Your task to perform on an android device: install app "Indeed Job Search" Image 0: 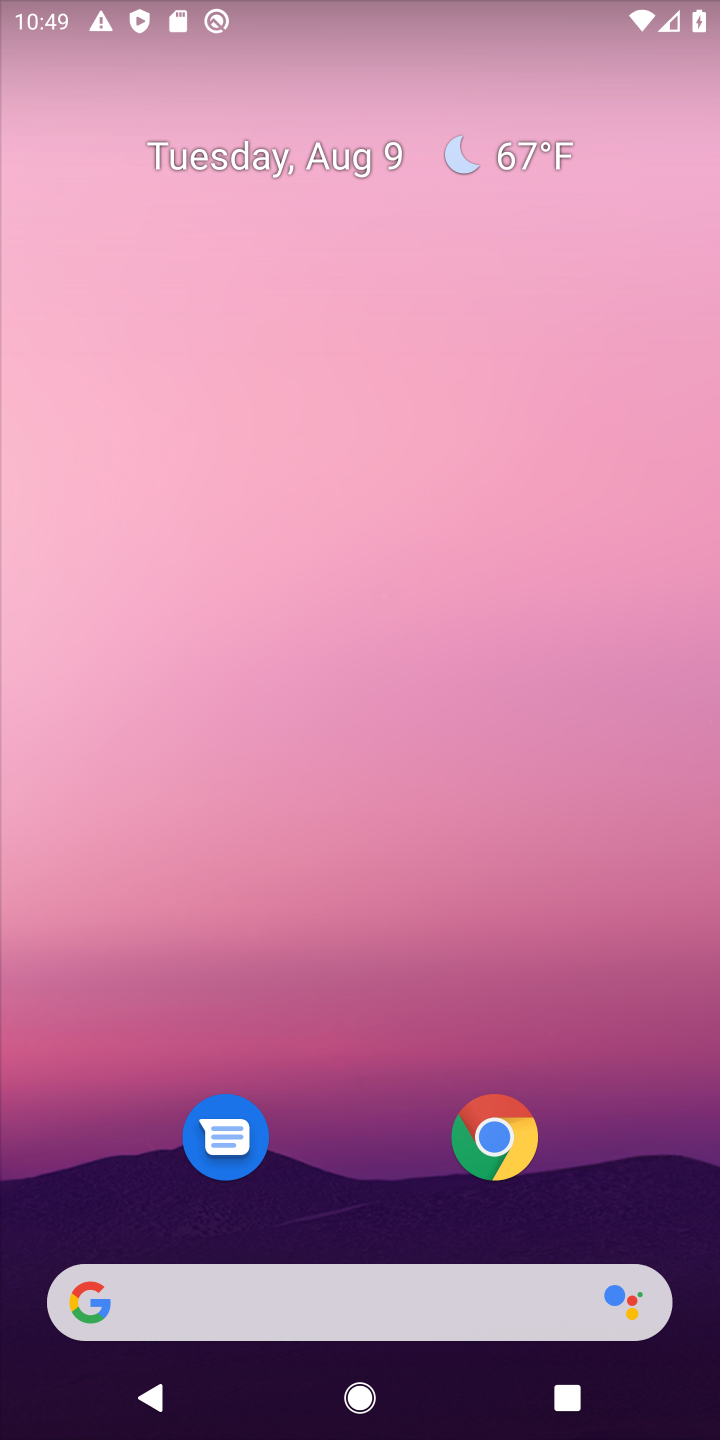
Step 0: drag from (645, 1173) to (284, 145)
Your task to perform on an android device: install app "Indeed Job Search" Image 1: 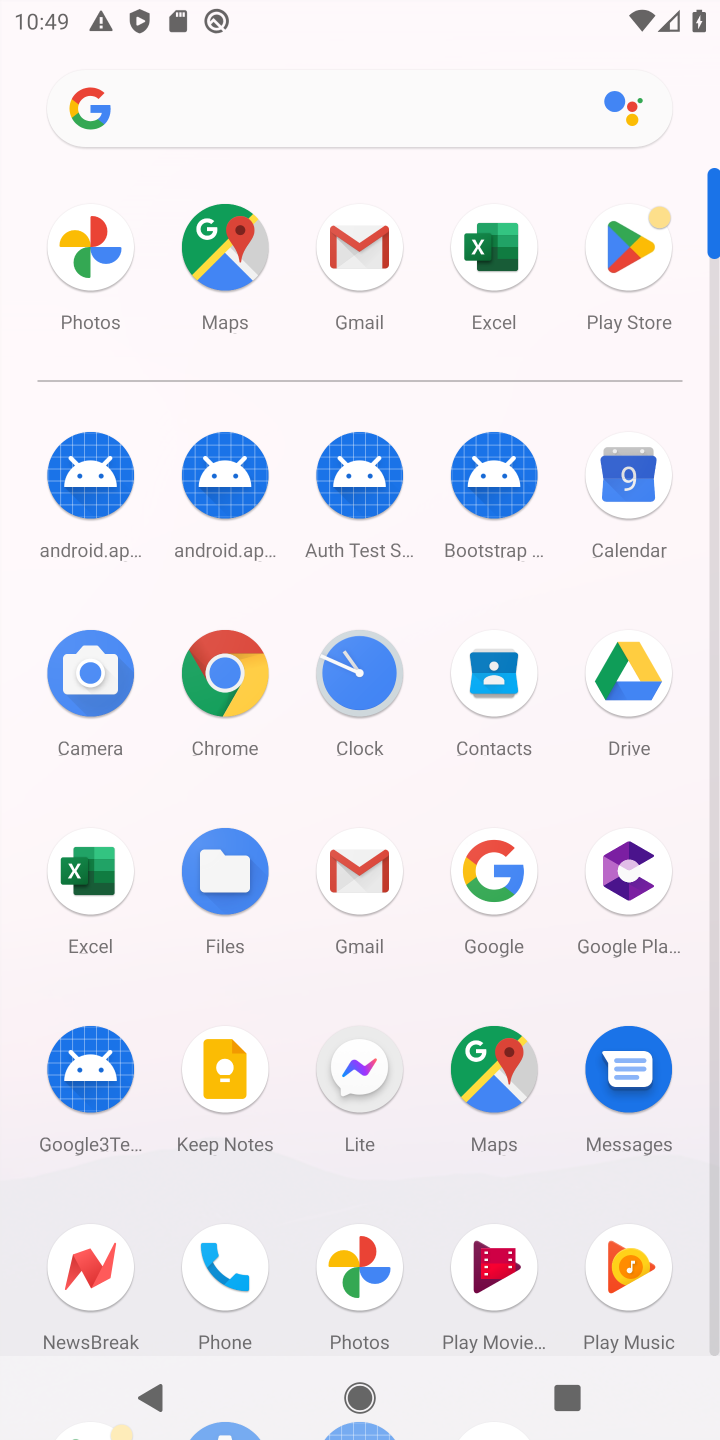
Step 1: click (635, 230)
Your task to perform on an android device: install app "Indeed Job Search" Image 2: 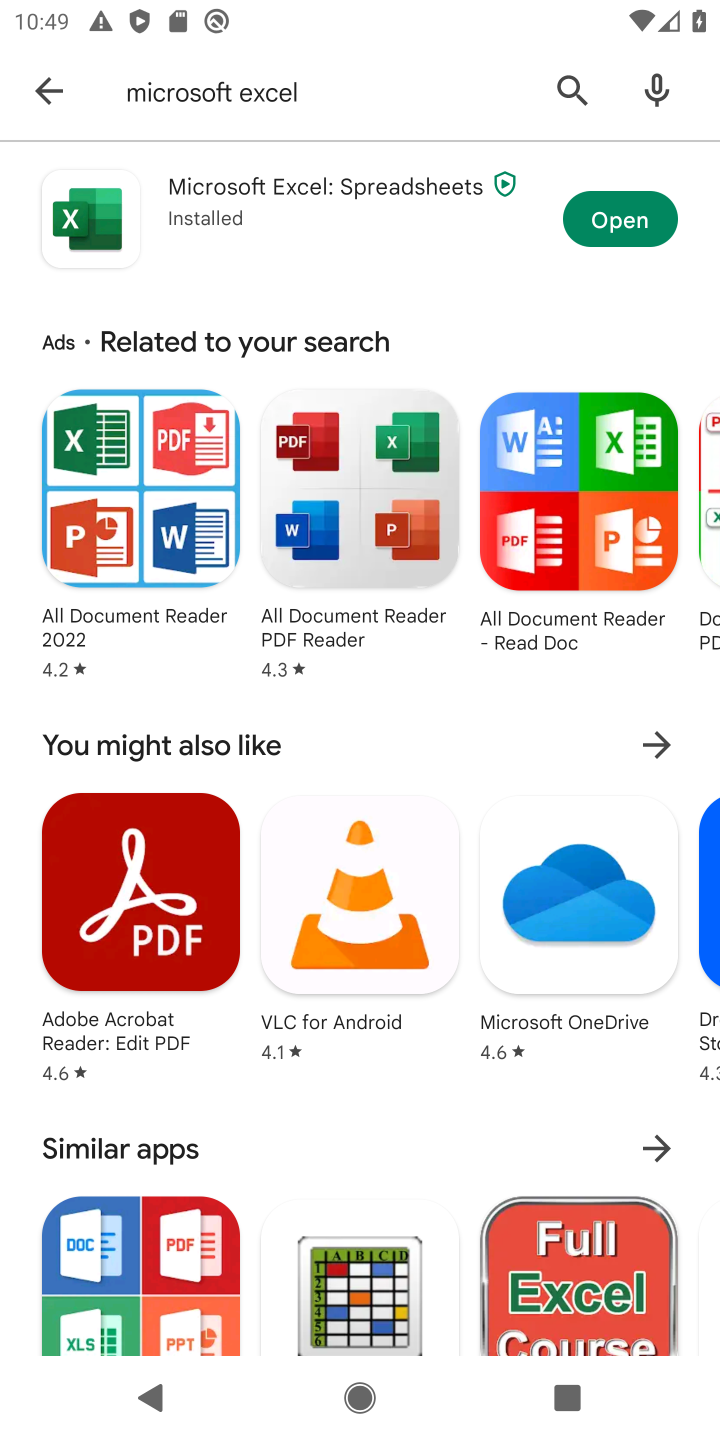
Step 2: press back button
Your task to perform on an android device: install app "Indeed Job Search" Image 3: 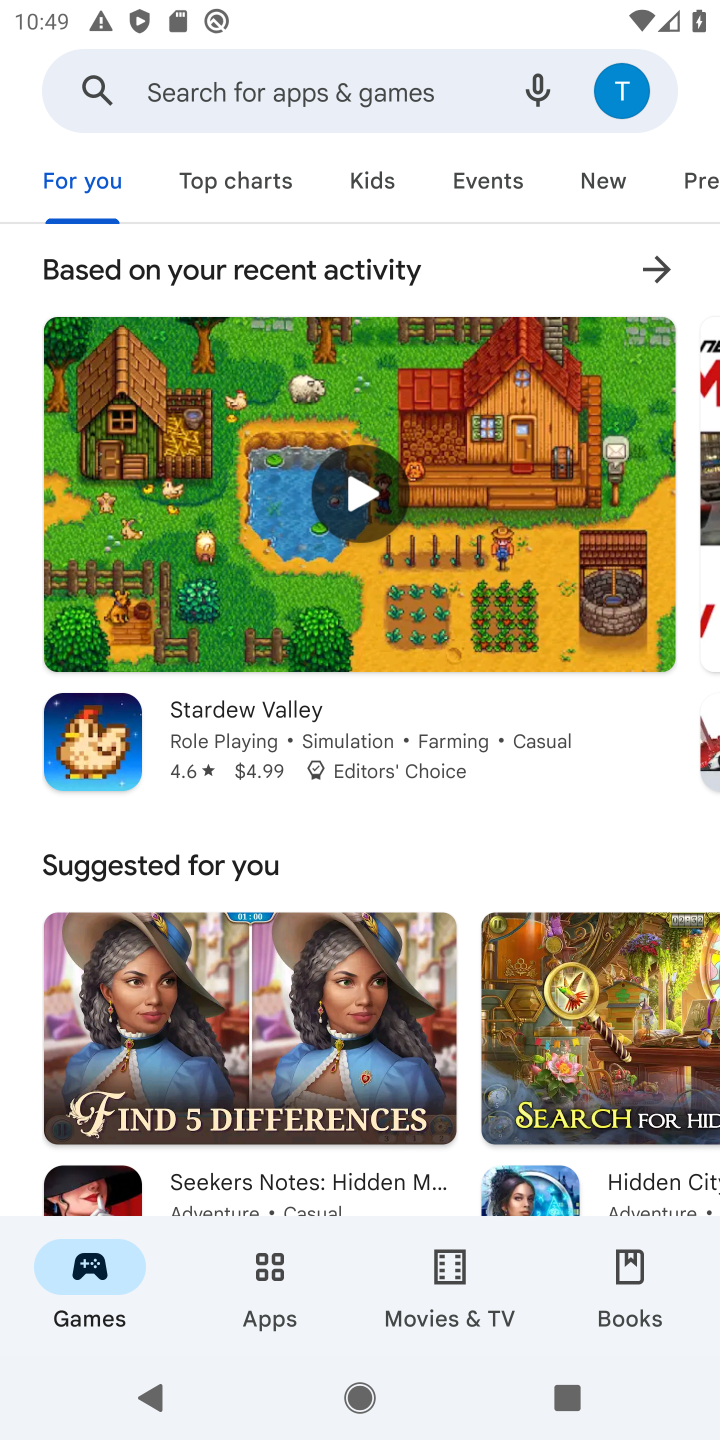
Step 3: click (229, 89)
Your task to perform on an android device: install app "Indeed Job Search" Image 4: 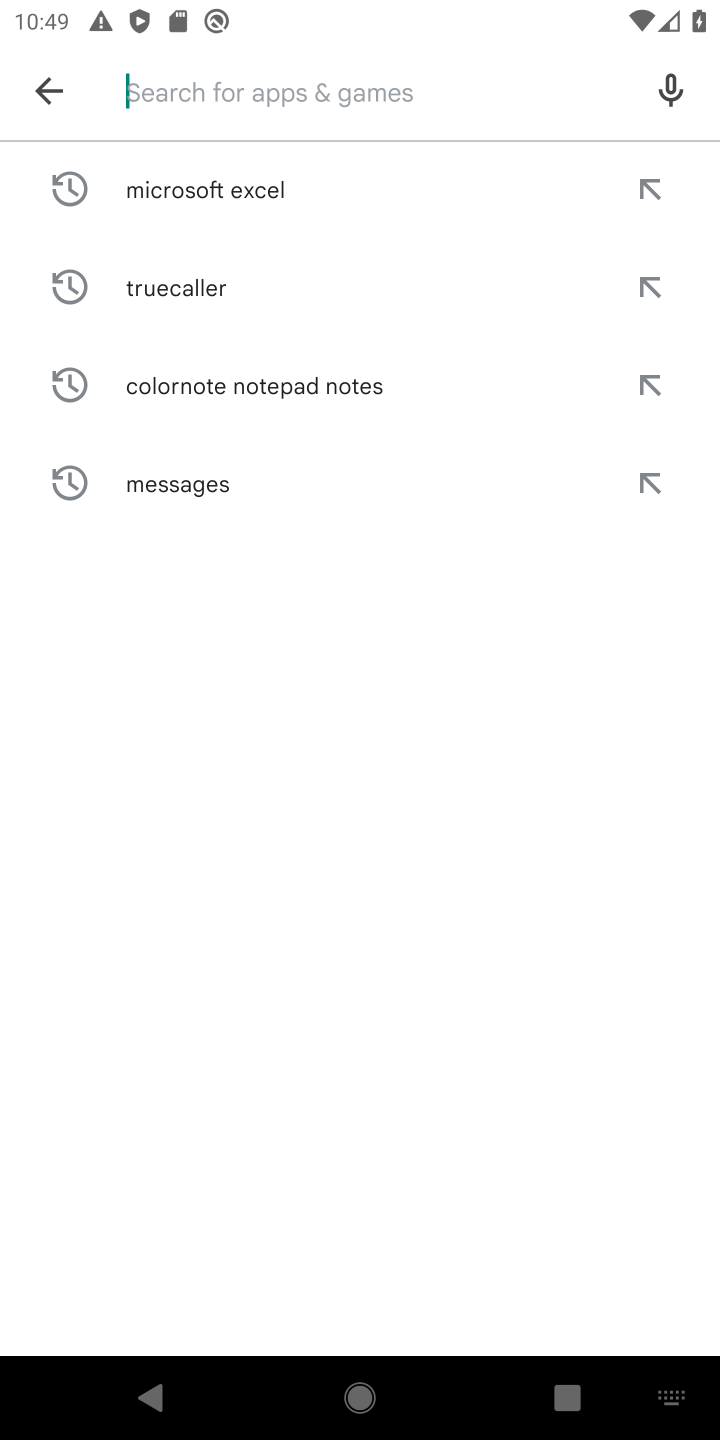
Step 4: type "Indeed Job Search"
Your task to perform on an android device: install app "Indeed Job Search" Image 5: 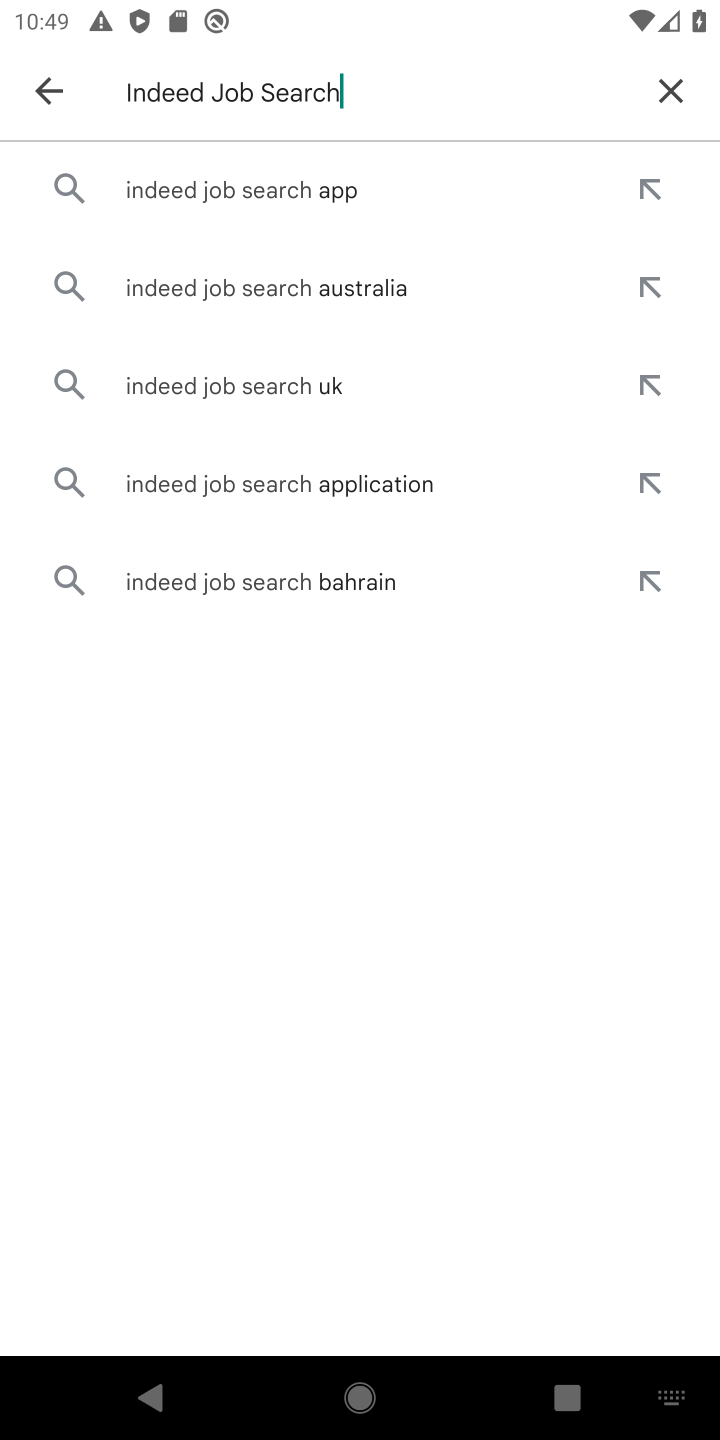
Step 5: click (261, 185)
Your task to perform on an android device: install app "Indeed Job Search" Image 6: 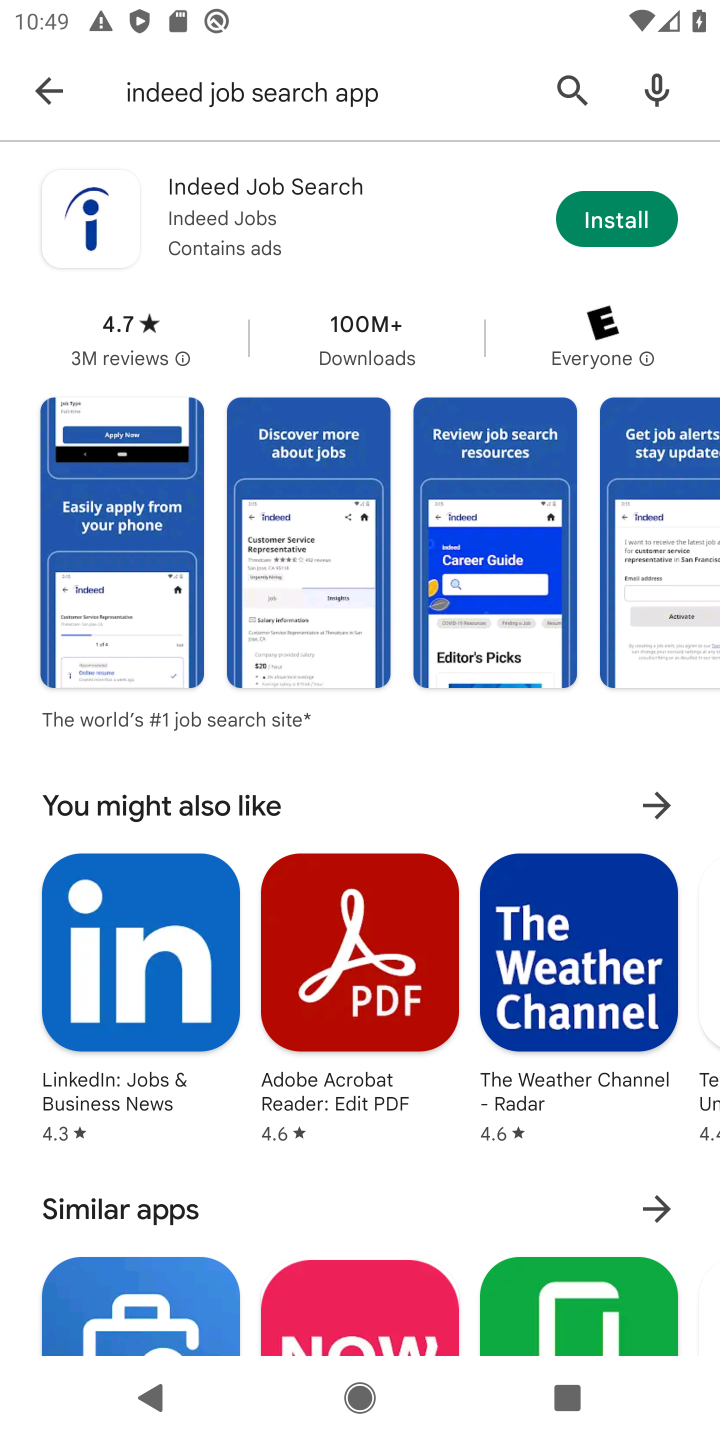
Step 6: click (612, 229)
Your task to perform on an android device: install app "Indeed Job Search" Image 7: 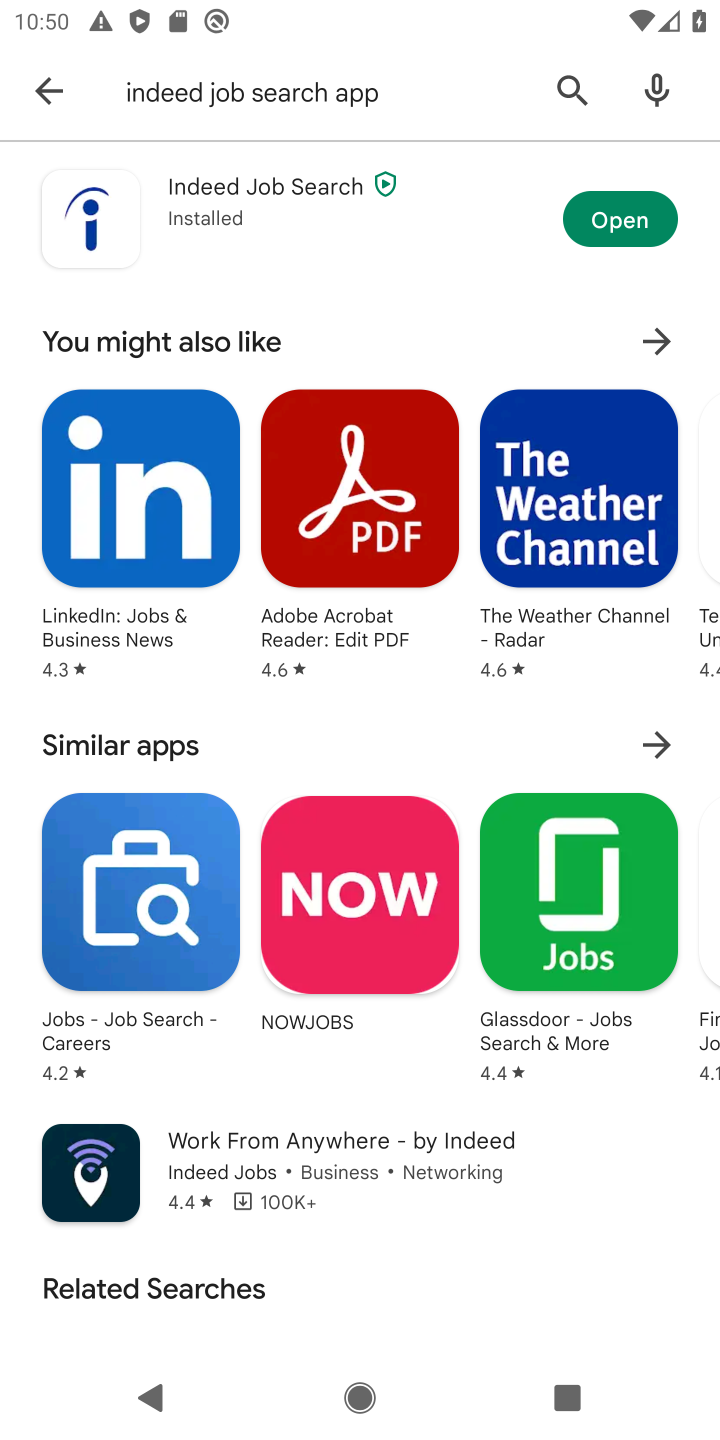
Step 7: task complete